Your task to perform on an android device: Is it going to rain this weekend? Image 0: 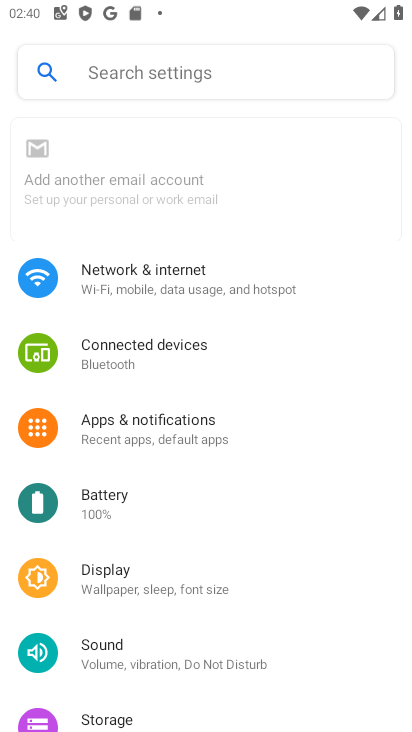
Step 0: drag from (172, 603) to (231, 145)
Your task to perform on an android device: Is it going to rain this weekend? Image 1: 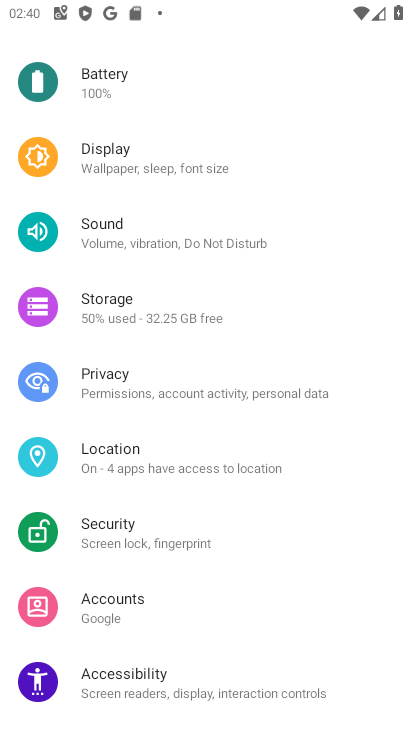
Step 1: press home button
Your task to perform on an android device: Is it going to rain this weekend? Image 2: 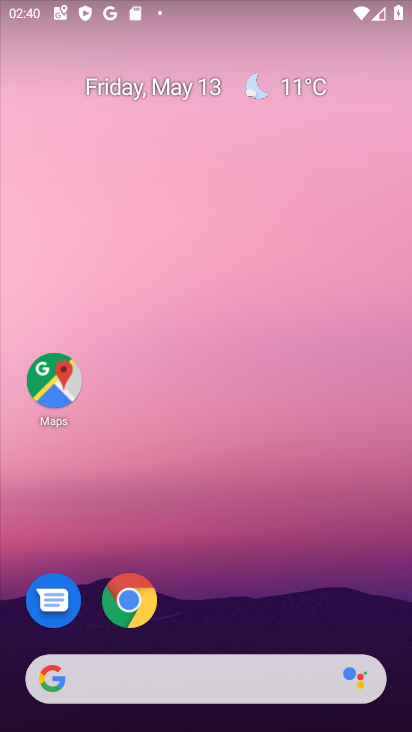
Step 2: drag from (217, 589) to (296, 152)
Your task to perform on an android device: Is it going to rain this weekend? Image 3: 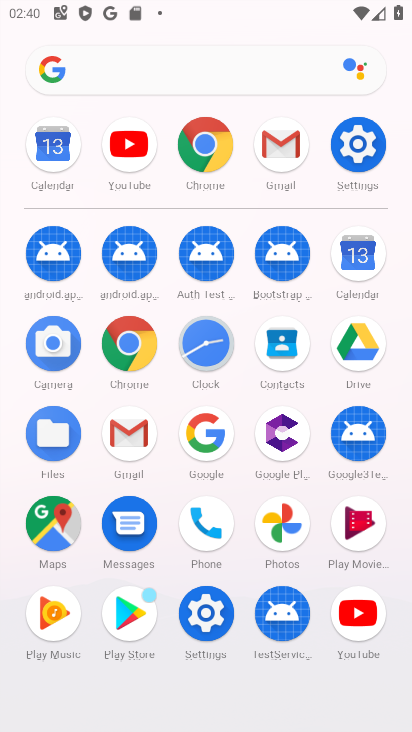
Step 3: click (181, 79)
Your task to perform on an android device: Is it going to rain this weekend? Image 4: 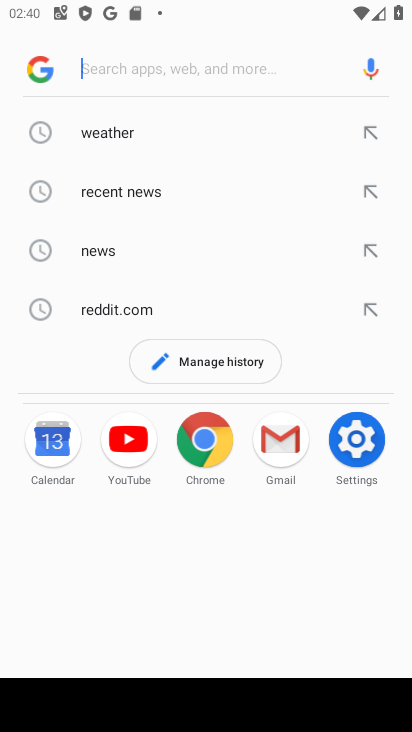
Step 4: click (187, 72)
Your task to perform on an android device: Is it going to rain this weekend? Image 5: 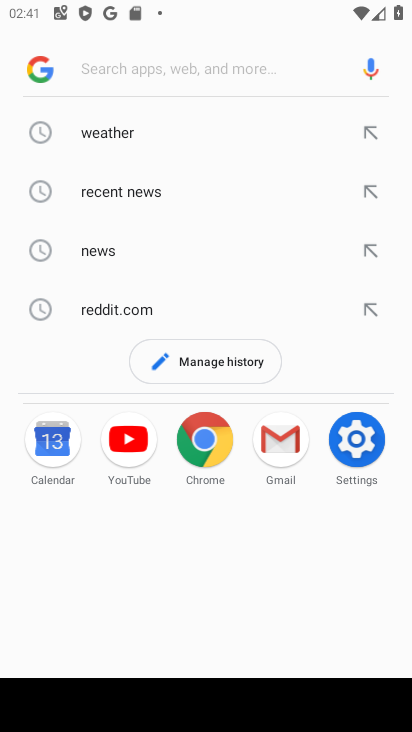
Step 5: type "rain weekend"
Your task to perform on an android device: Is it going to rain this weekend? Image 6: 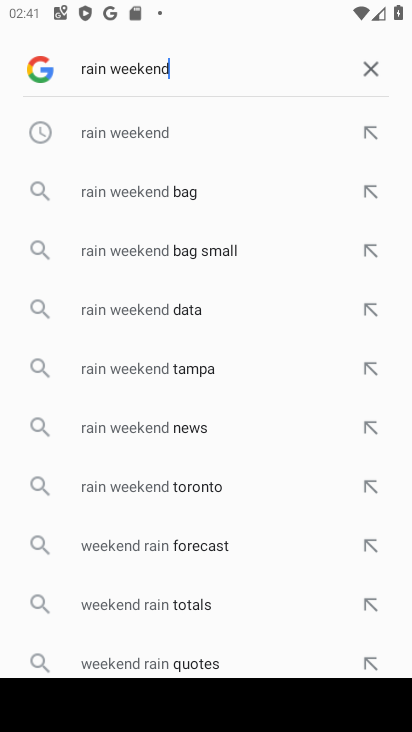
Step 6: click (125, 118)
Your task to perform on an android device: Is it going to rain this weekend? Image 7: 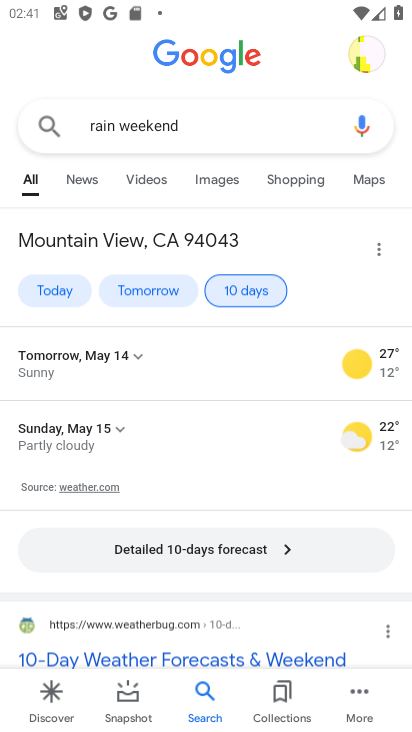
Step 7: task complete